Your task to perform on an android device: Find coffee shops on Maps Image 0: 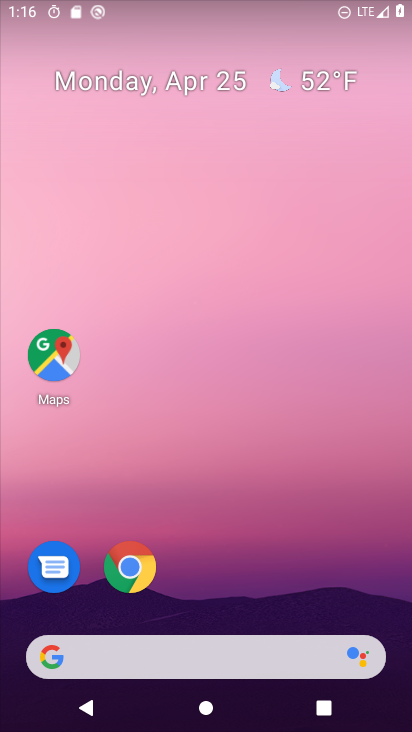
Step 0: click (55, 348)
Your task to perform on an android device: Find coffee shops on Maps Image 1: 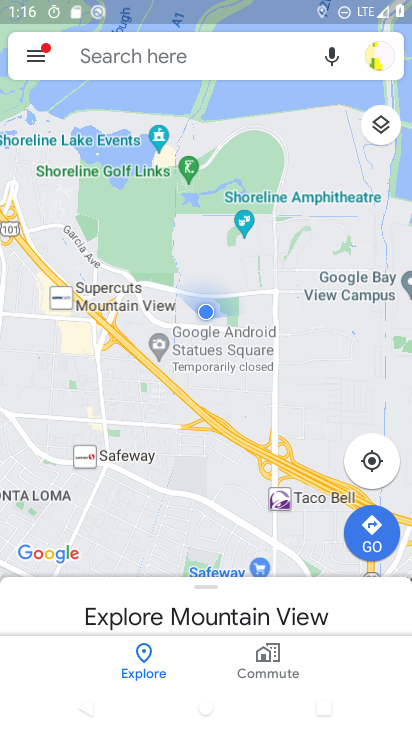
Step 1: click (196, 55)
Your task to perform on an android device: Find coffee shops on Maps Image 2: 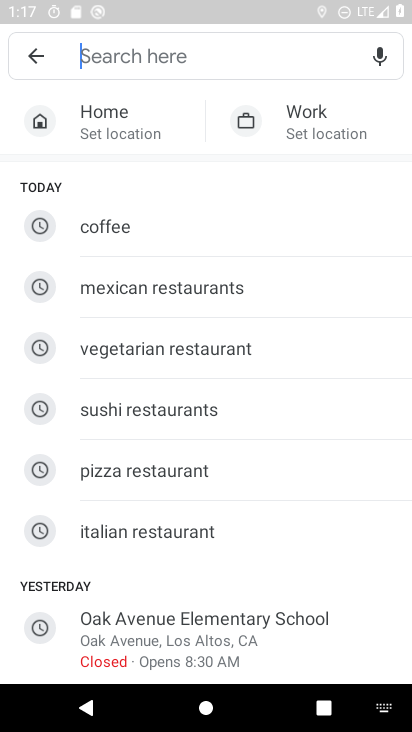
Step 2: click (150, 223)
Your task to perform on an android device: Find coffee shops on Maps Image 3: 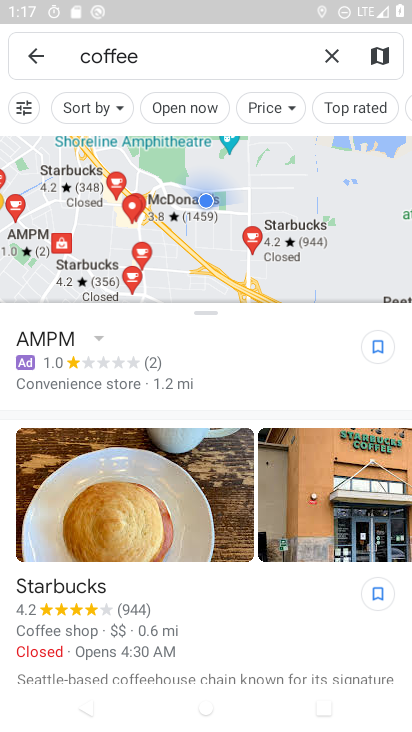
Step 3: task complete